Your task to perform on an android device: read, delete, or share a saved page in the chrome app Image 0: 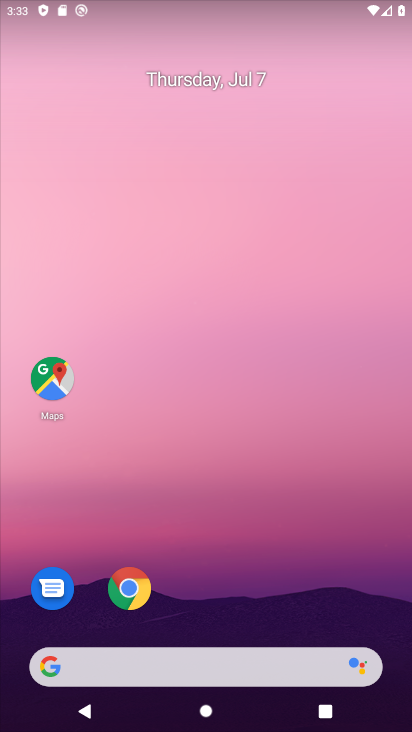
Step 0: drag from (275, 674) to (308, 38)
Your task to perform on an android device: read, delete, or share a saved page in the chrome app Image 1: 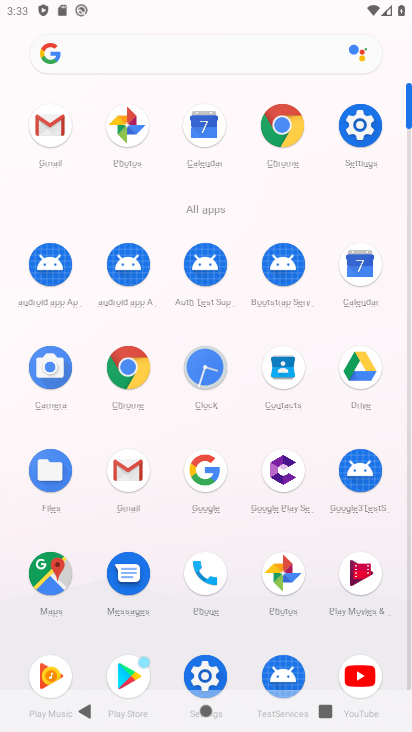
Step 1: click (137, 366)
Your task to perform on an android device: read, delete, or share a saved page in the chrome app Image 2: 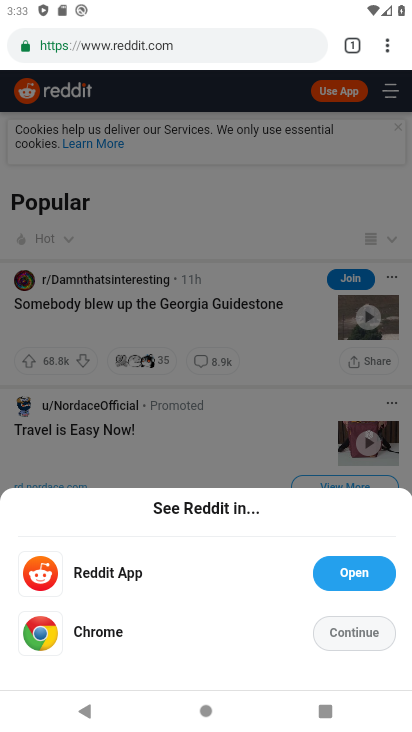
Step 2: click (389, 37)
Your task to perform on an android device: read, delete, or share a saved page in the chrome app Image 3: 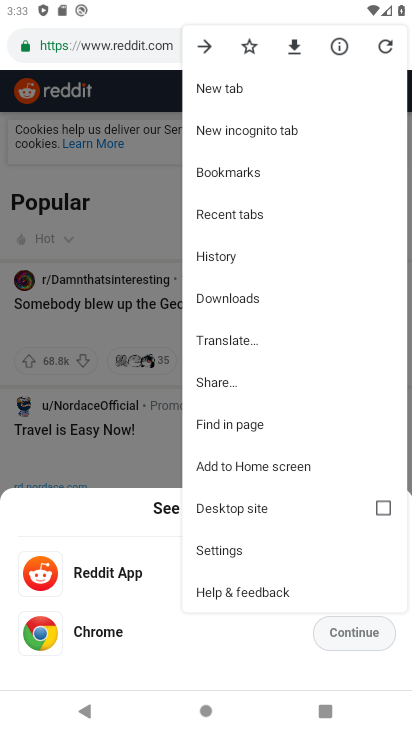
Step 3: click (232, 171)
Your task to perform on an android device: read, delete, or share a saved page in the chrome app Image 4: 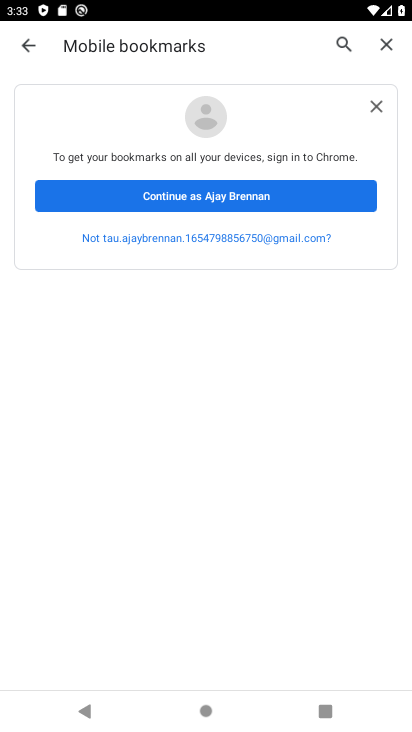
Step 4: task complete